Your task to perform on an android device: turn off airplane mode Image 0: 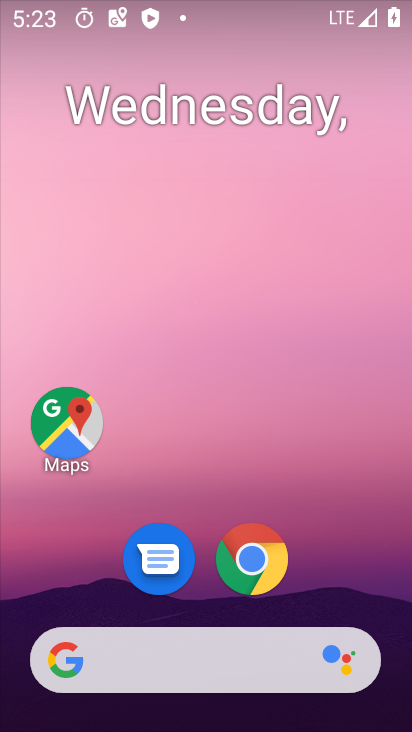
Step 0: drag from (344, 540) to (230, 66)
Your task to perform on an android device: turn off airplane mode Image 1: 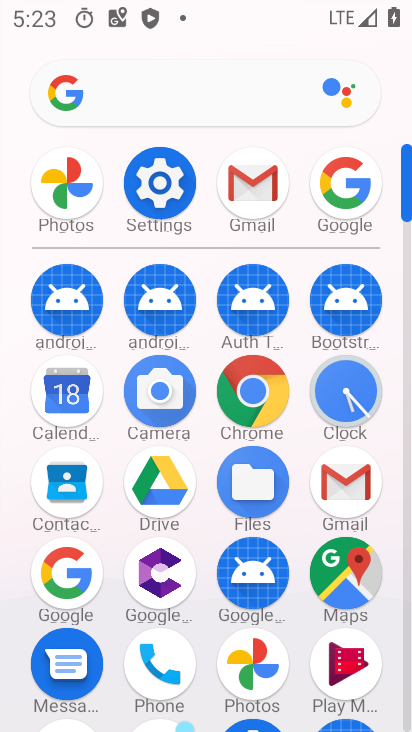
Step 1: click (152, 184)
Your task to perform on an android device: turn off airplane mode Image 2: 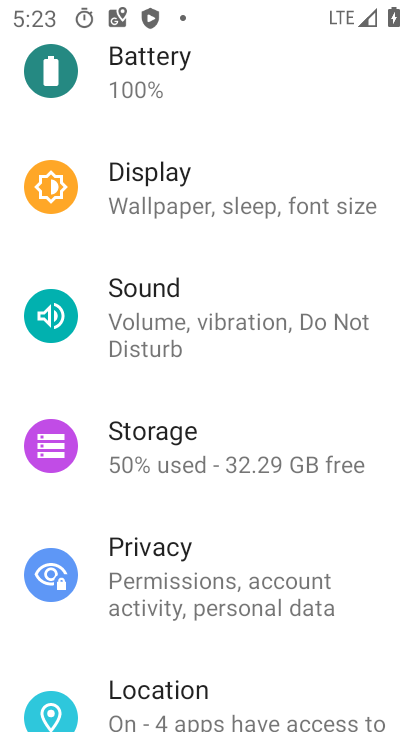
Step 2: drag from (257, 148) to (243, 701)
Your task to perform on an android device: turn off airplane mode Image 3: 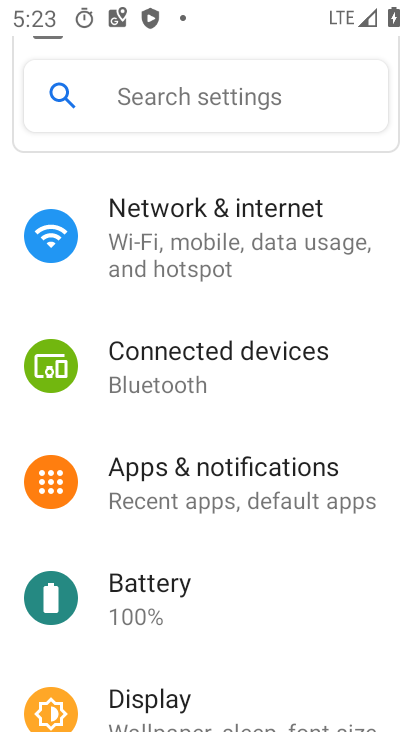
Step 3: click (224, 240)
Your task to perform on an android device: turn off airplane mode Image 4: 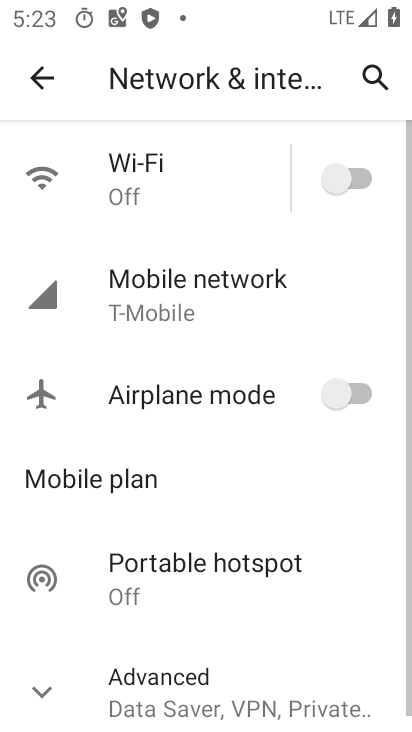
Step 4: task complete